Your task to perform on an android device: turn off notifications in google photos Image 0: 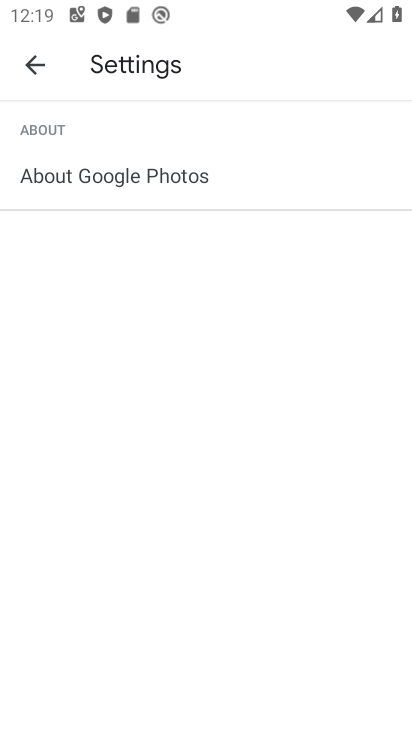
Step 0: press home button
Your task to perform on an android device: turn off notifications in google photos Image 1: 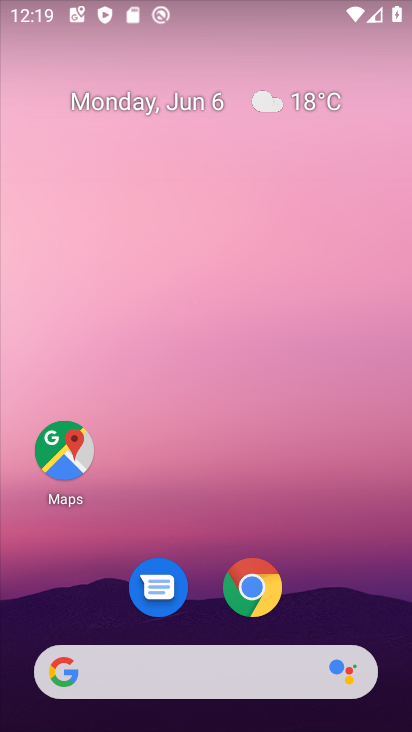
Step 1: drag from (299, 561) to (288, 179)
Your task to perform on an android device: turn off notifications in google photos Image 2: 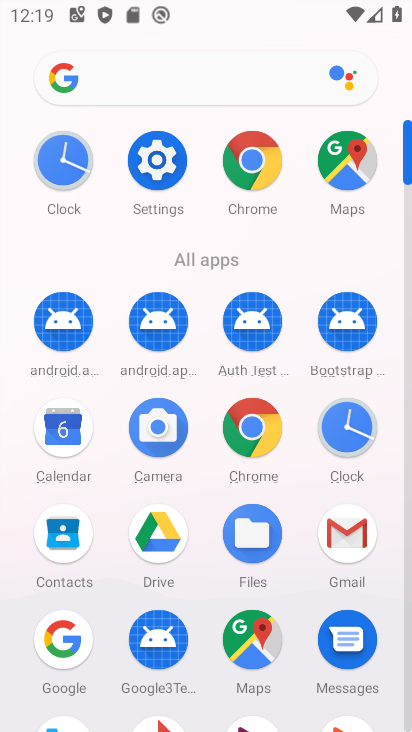
Step 2: drag from (273, 599) to (301, 229)
Your task to perform on an android device: turn off notifications in google photos Image 3: 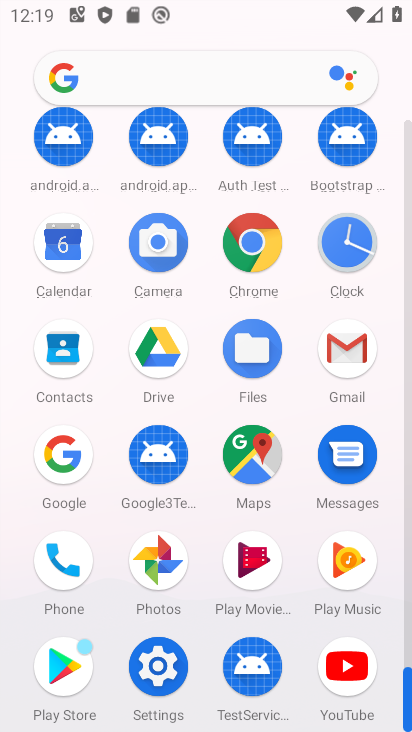
Step 3: click (160, 567)
Your task to perform on an android device: turn off notifications in google photos Image 4: 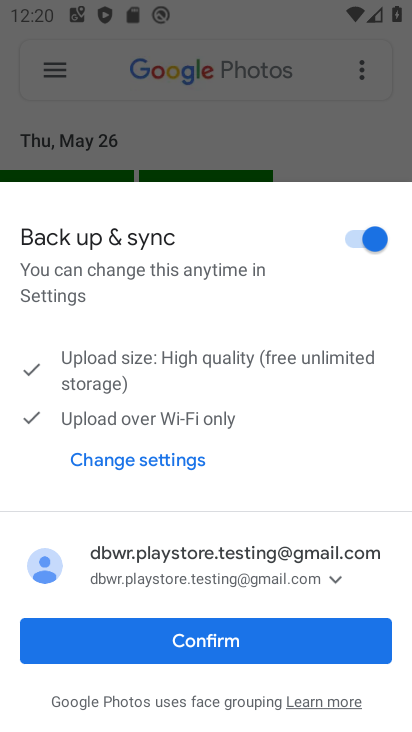
Step 4: click (201, 631)
Your task to perform on an android device: turn off notifications in google photos Image 5: 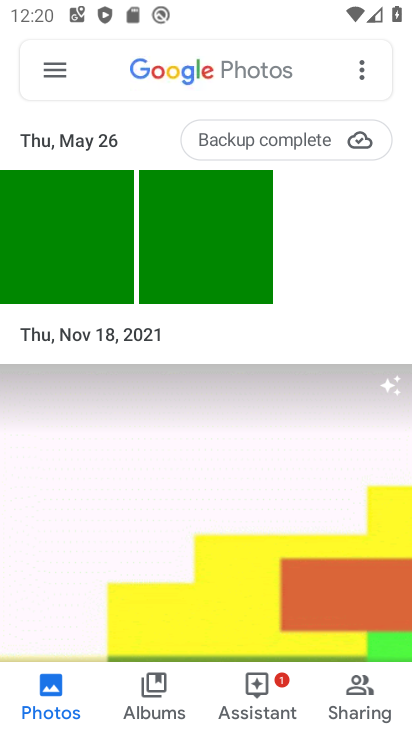
Step 5: click (52, 66)
Your task to perform on an android device: turn off notifications in google photos Image 6: 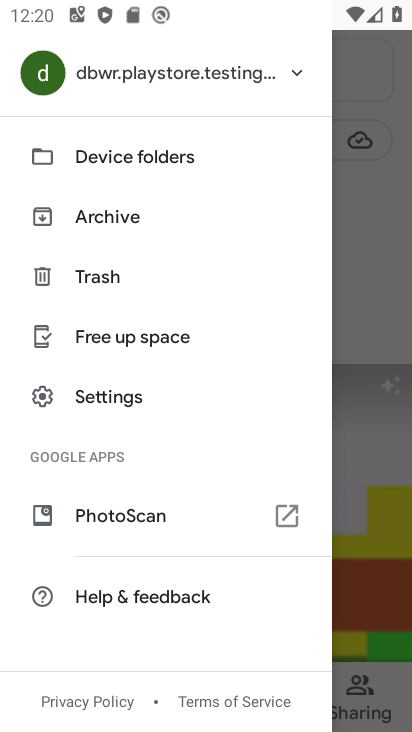
Step 6: click (194, 386)
Your task to perform on an android device: turn off notifications in google photos Image 7: 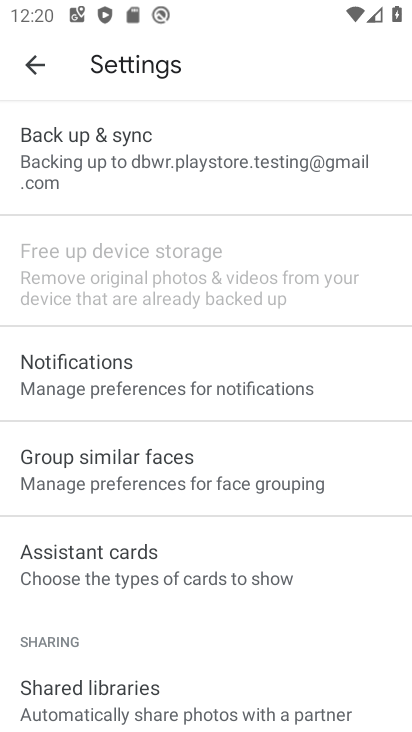
Step 7: click (194, 386)
Your task to perform on an android device: turn off notifications in google photos Image 8: 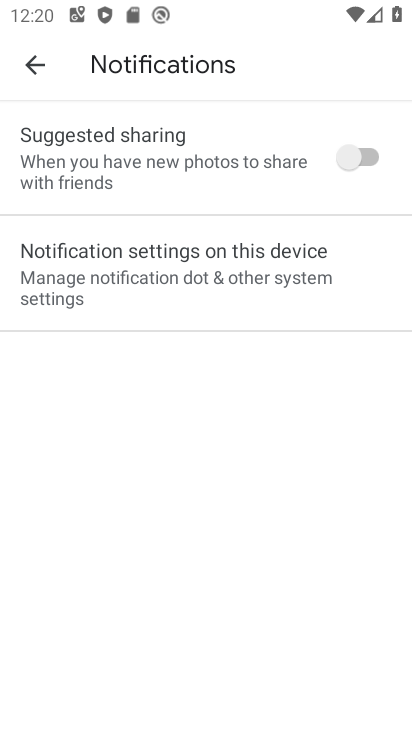
Step 8: click (211, 276)
Your task to perform on an android device: turn off notifications in google photos Image 9: 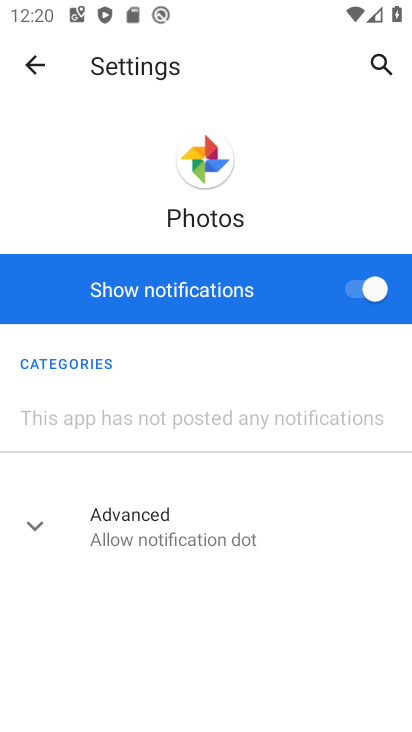
Step 9: click (358, 285)
Your task to perform on an android device: turn off notifications in google photos Image 10: 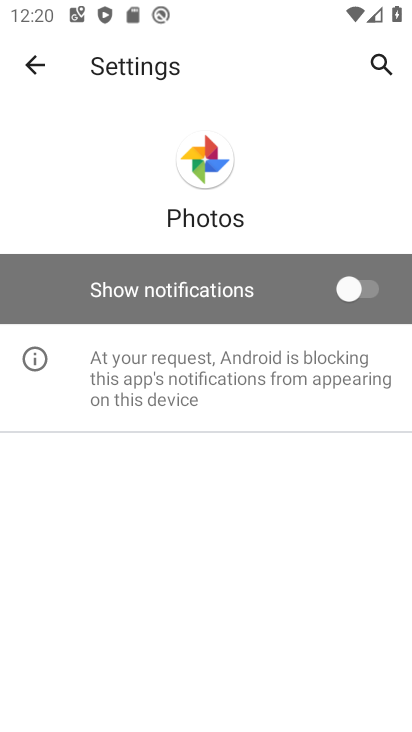
Step 10: task complete